Your task to perform on an android device: open app "Fetch Rewards" Image 0: 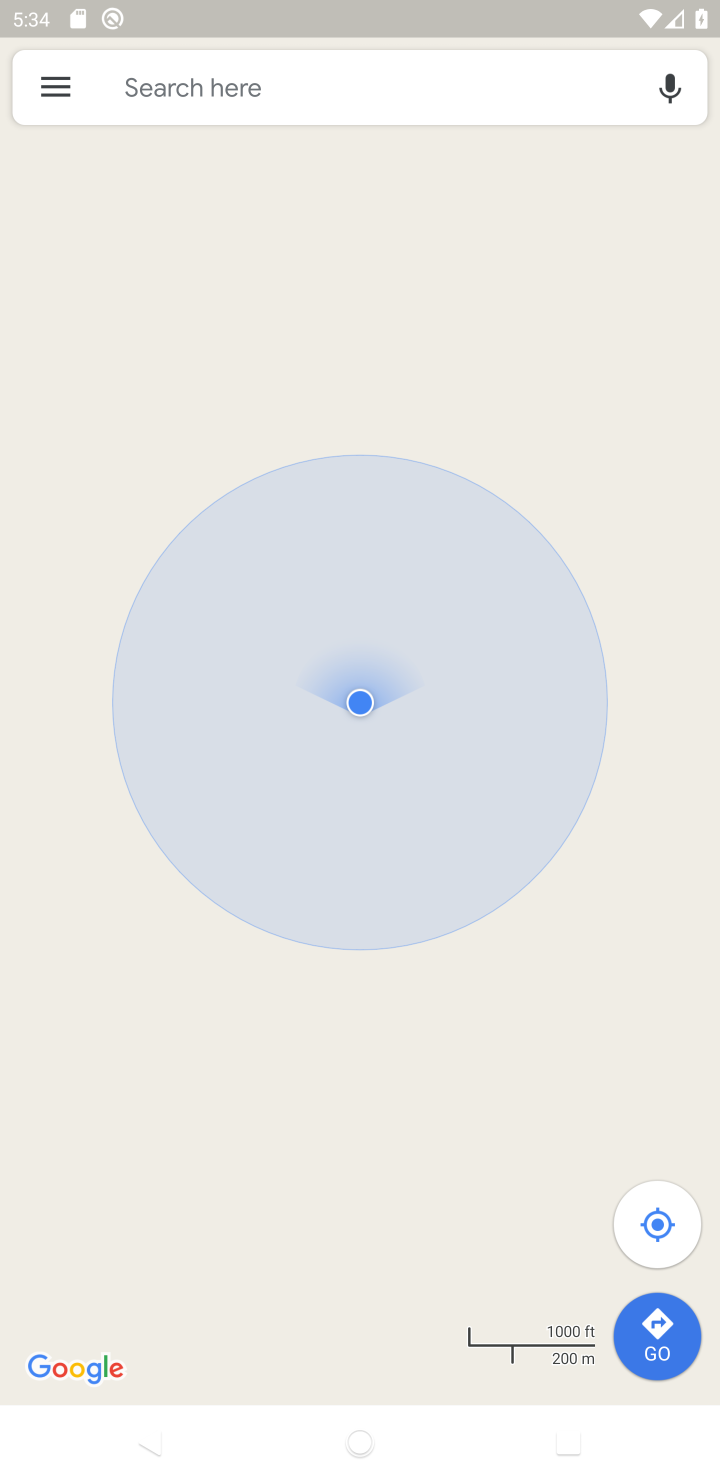
Step 0: press home button
Your task to perform on an android device: open app "Fetch Rewards" Image 1: 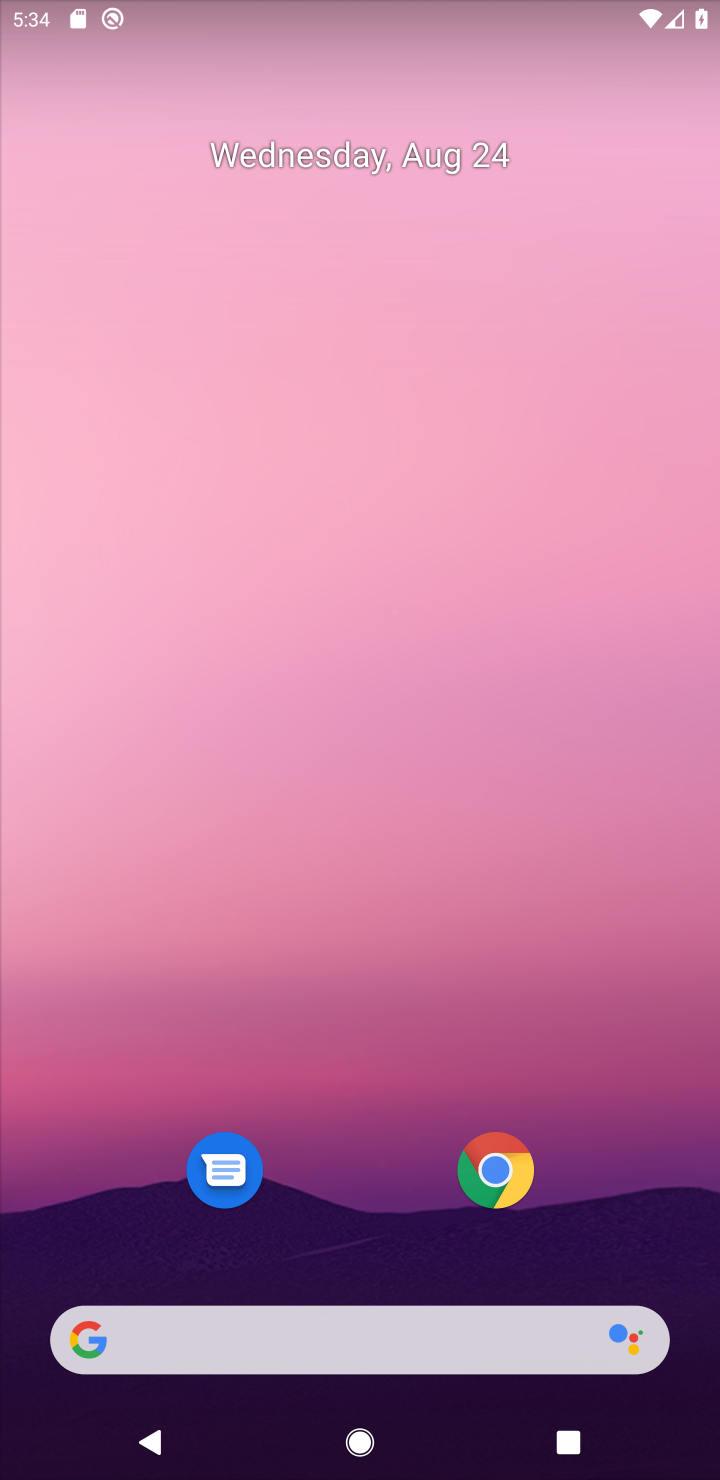
Step 1: click (354, 8)
Your task to perform on an android device: open app "Fetch Rewards" Image 2: 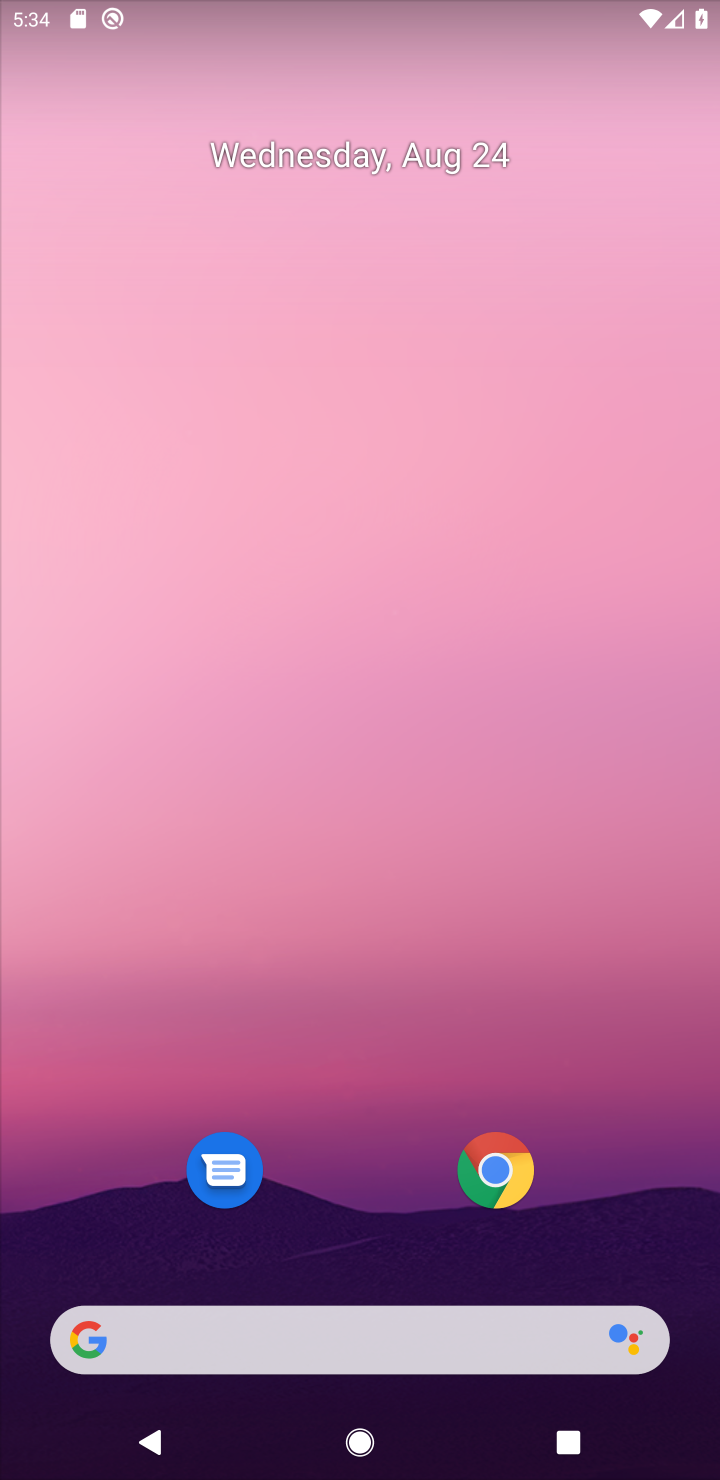
Step 2: drag from (316, 1173) to (378, 144)
Your task to perform on an android device: open app "Fetch Rewards" Image 3: 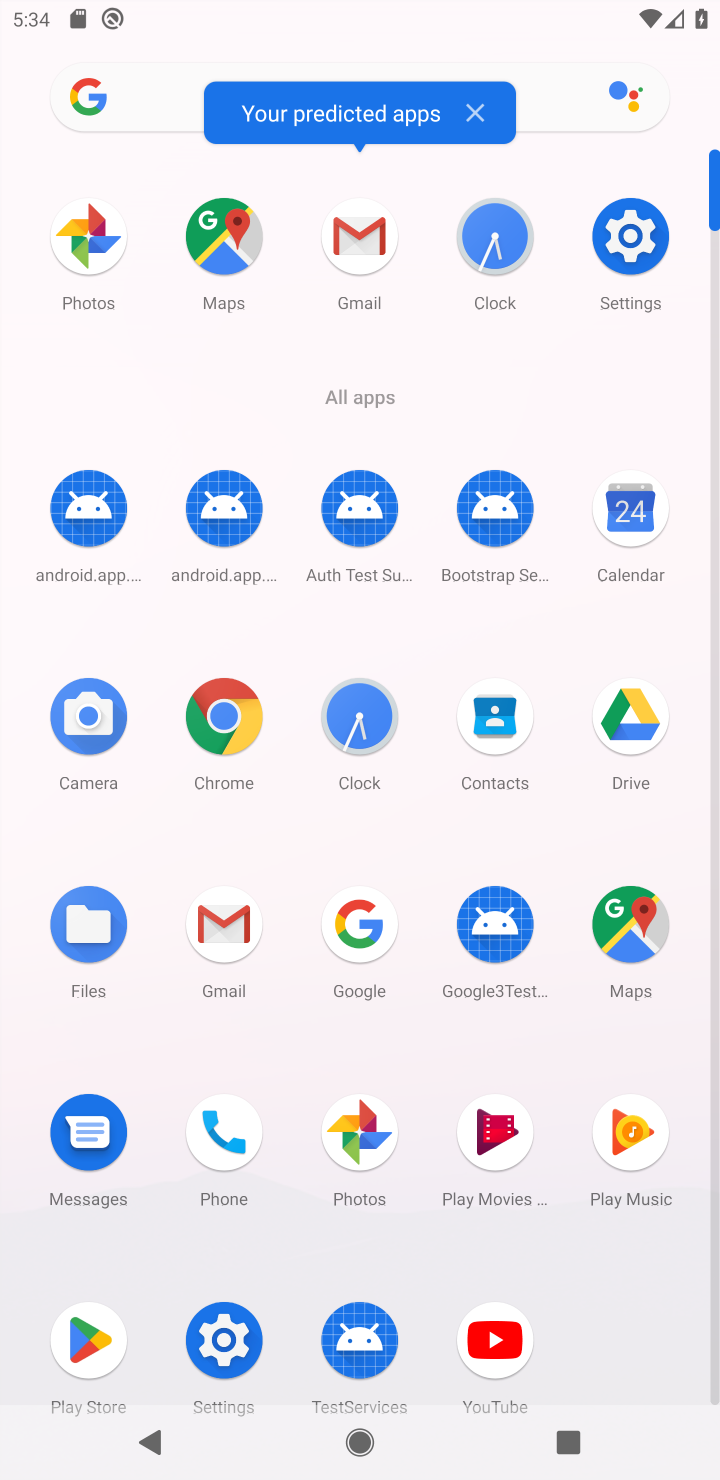
Step 3: click (88, 1345)
Your task to perform on an android device: open app "Fetch Rewards" Image 4: 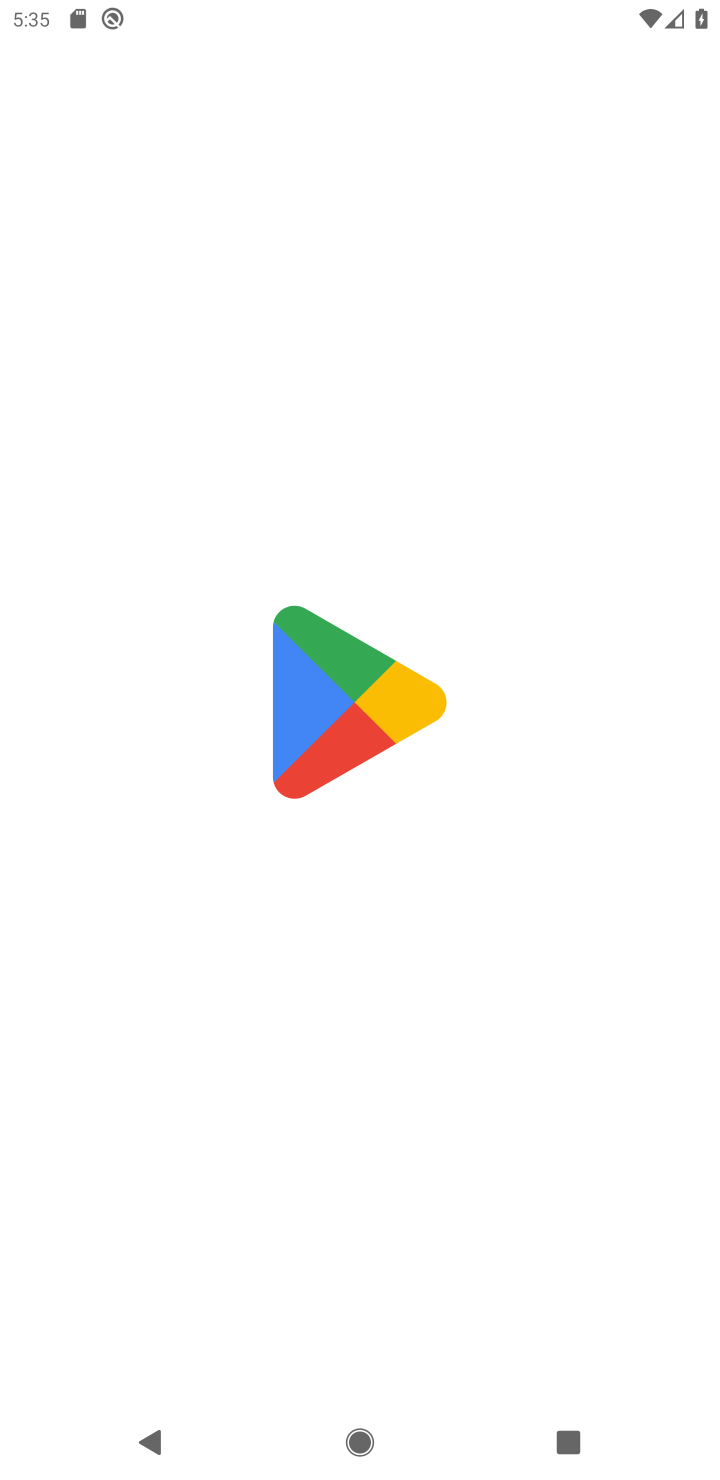
Step 4: task complete